Your task to perform on an android device: Clear the cart on newegg.com. Image 0: 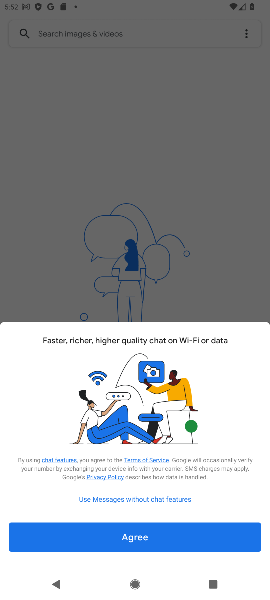
Step 0: press home button
Your task to perform on an android device: Clear the cart on newegg.com. Image 1: 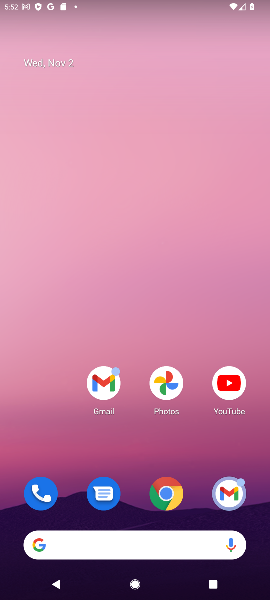
Step 1: drag from (119, 495) to (219, 151)
Your task to perform on an android device: Clear the cart on newegg.com. Image 2: 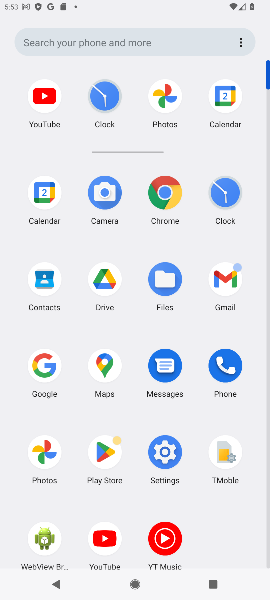
Step 2: click (40, 373)
Your task to perform on an android device: Clear the cart on newegg.com. Image 3: 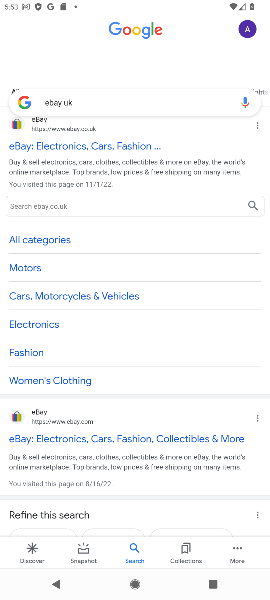
Step 3: click (110, 99)
Your task to perform on an android device: Clear the cart on newegg.com. Image 4: 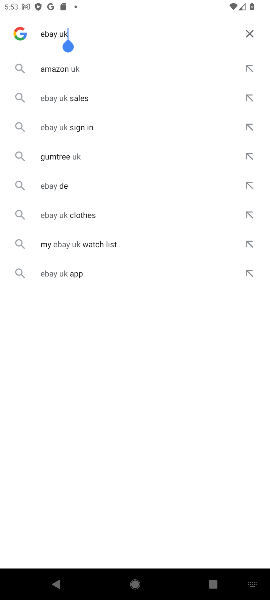
Step 4: click (243, 38)
Your task to perform on an android device: Clear the cart on newegg.com. Image 5: 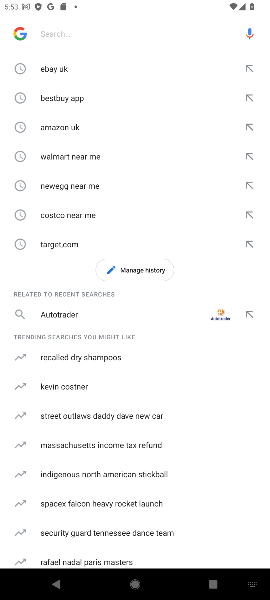
Step 5: click (76, 183)
Your task to perform on an android device: Clear the cart on newegg.com. Image 6: 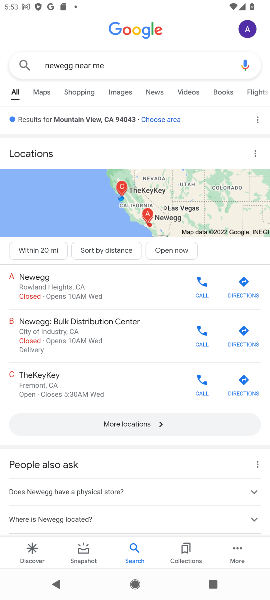
Step 6: drag from (96, 445) to (114, 204)
Your task to perform on an android device: Clear the cart on newegg.com. Image 7: 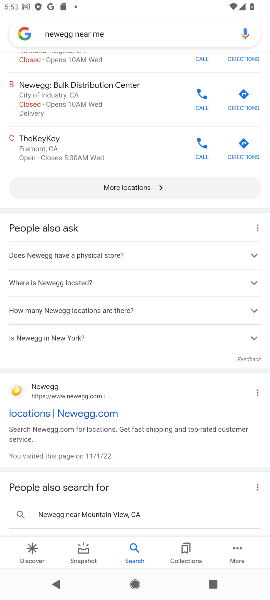
Step 7: click (19, 387)
Your task to perform on an android device: Clear the cart on newegg.com. Image 8: 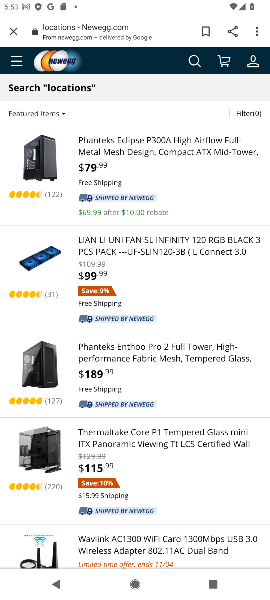
Step 8: click (220, 55)
Your task to perform on an android device: Clear the cart on newegg.com. Image 9: 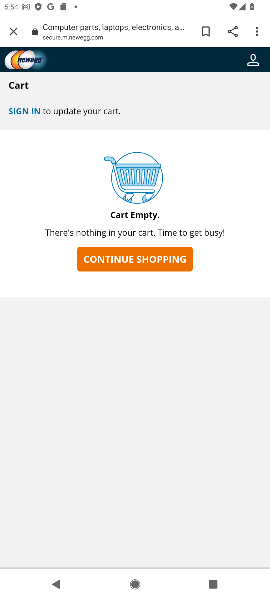
Step 9: task complete